Your task to perform on an android device: change alarm snooze length Image 0: 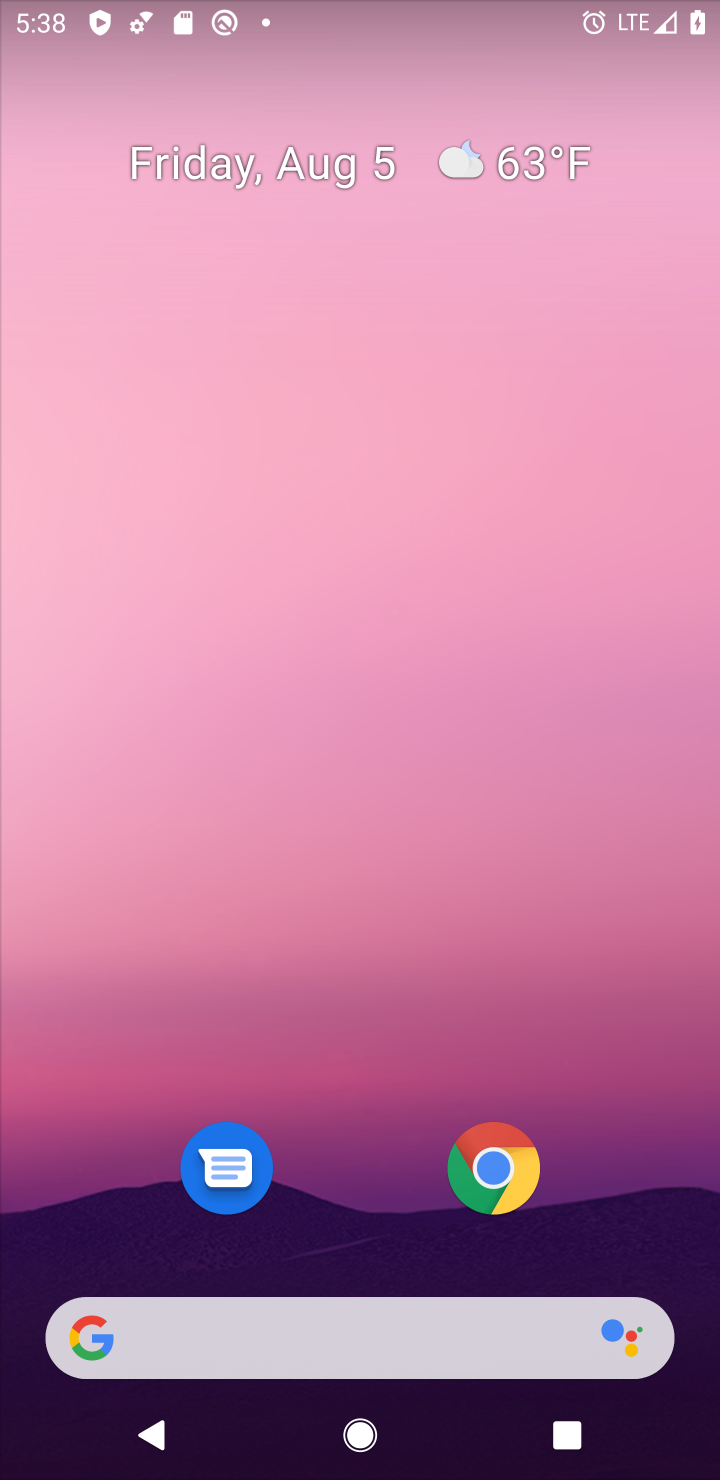
Step 0: drag from (372, 1254) to (500, 11)
Your task to perform on an android device: change alarm snooze length Image 1: 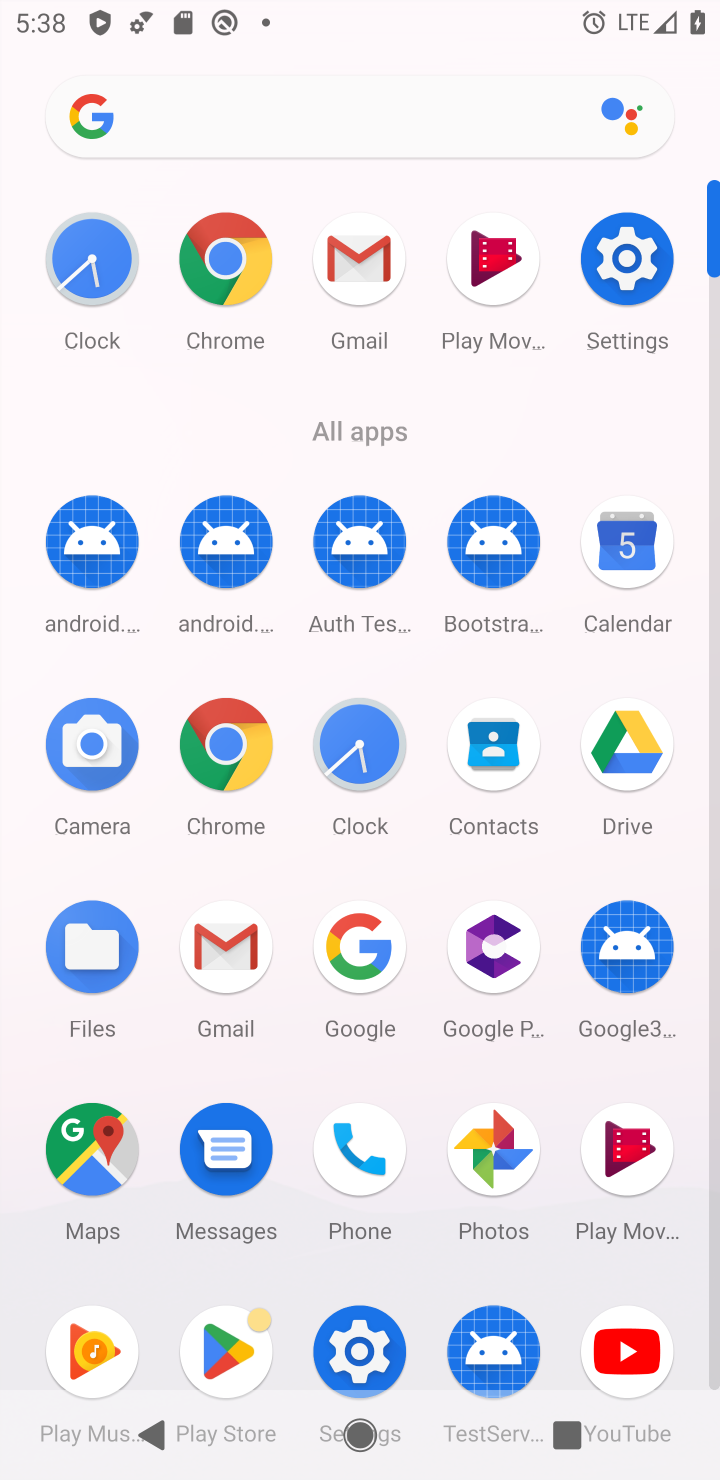
Step 1: click (360, 768)
Your task to perform on an android device: change alarm snooze length Image 2: 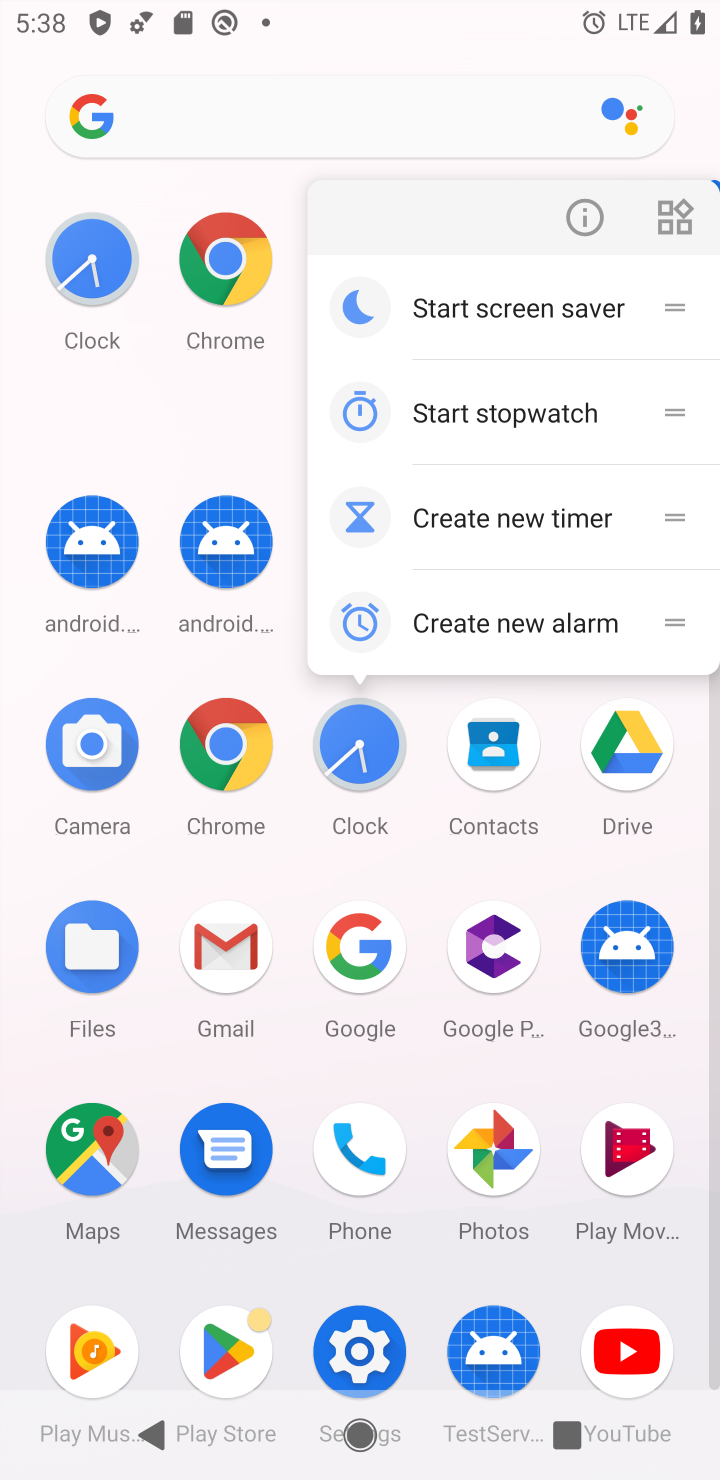
Step 2: click (374, 745)
Your task to perform on an android device: change alarm snooze length Image 3: 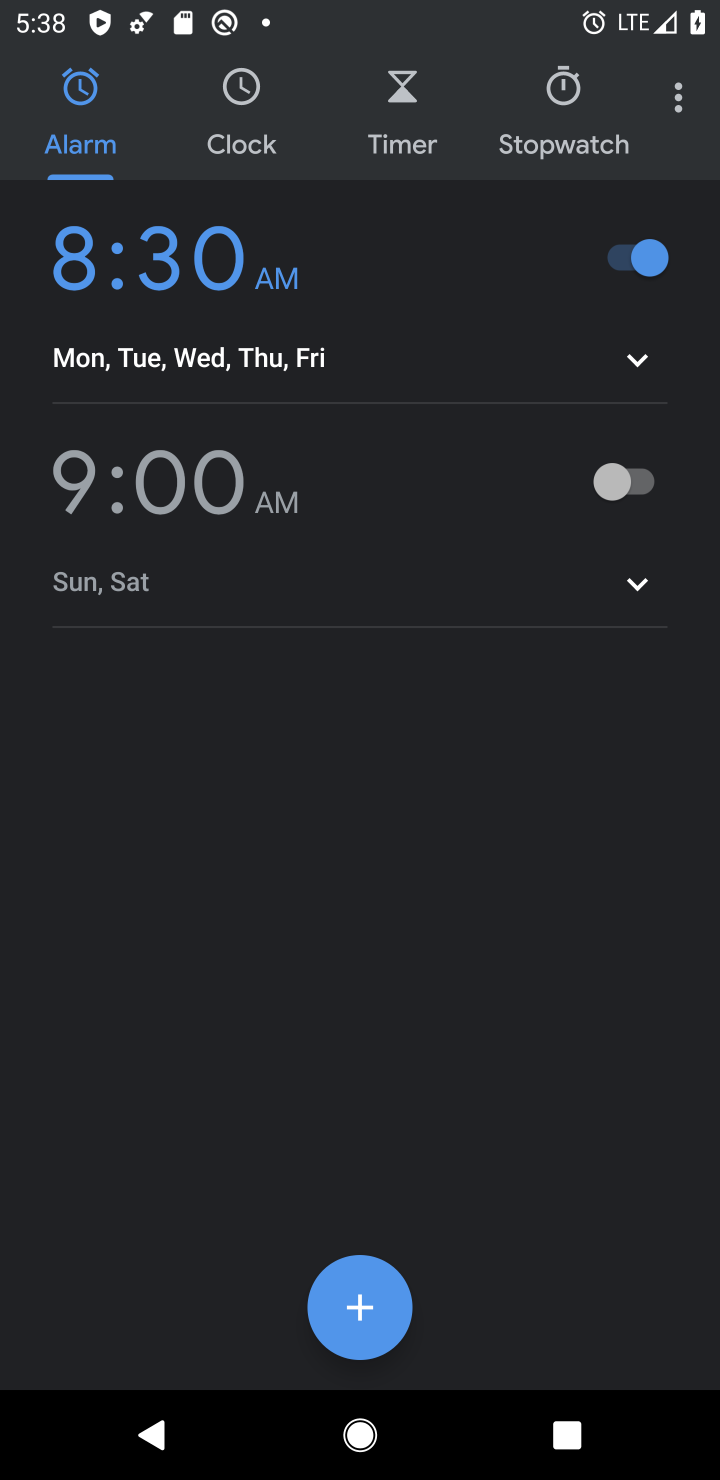
Step 3: click (669, 98)
Your task to perform on an android device: change alarm snooze length Image 4: 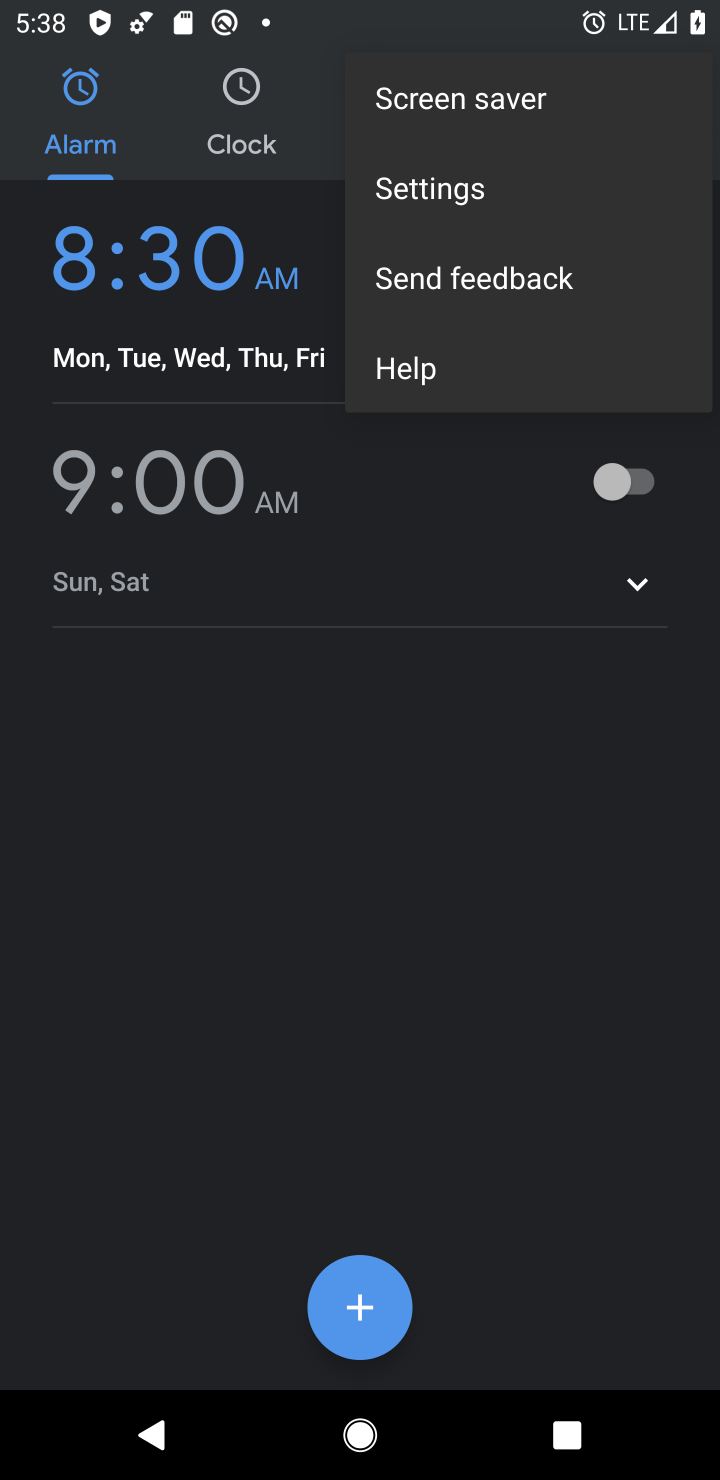
Step 4: click (439, 195)
Your task to perform on an android device: change alarm snooze length Image 5: 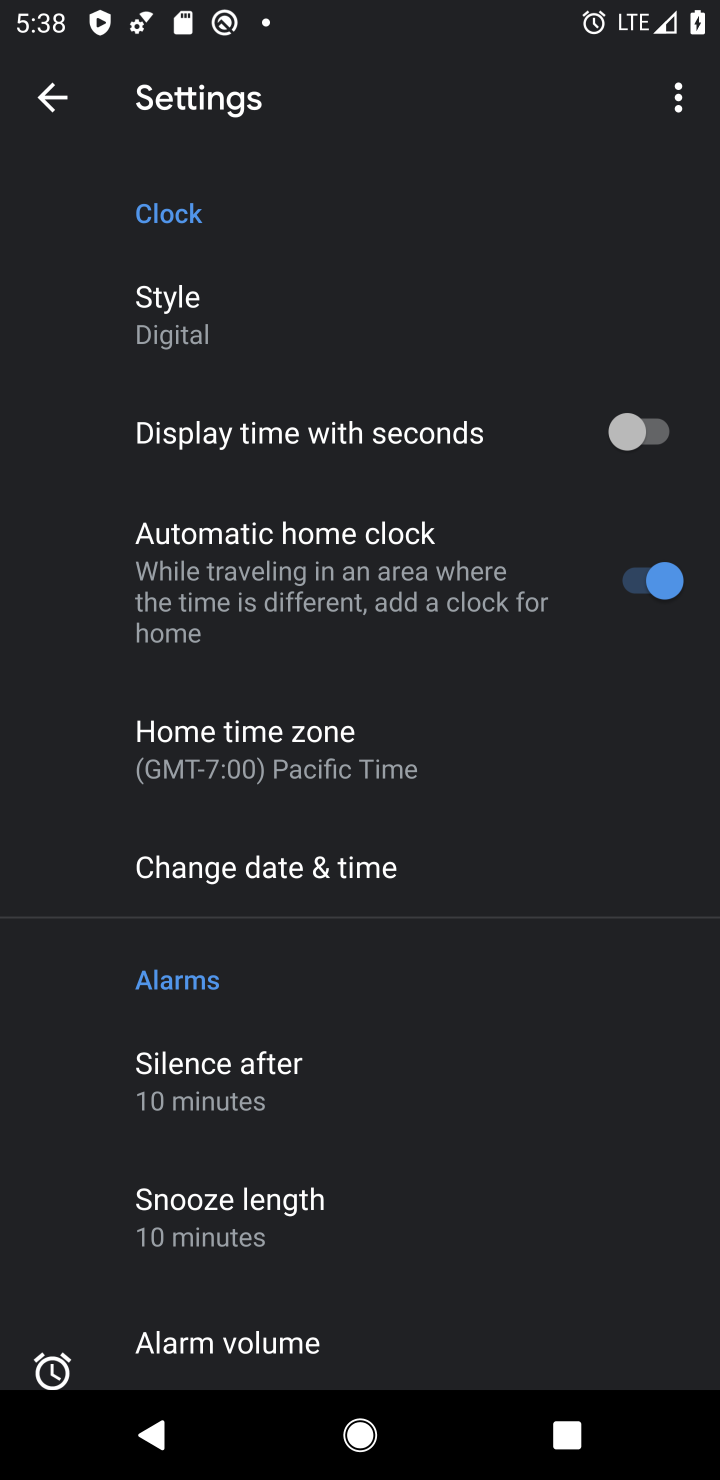
Step 5: click (220, 1204)
Your task to perform on an android device: change alarm snooze length Image 6: 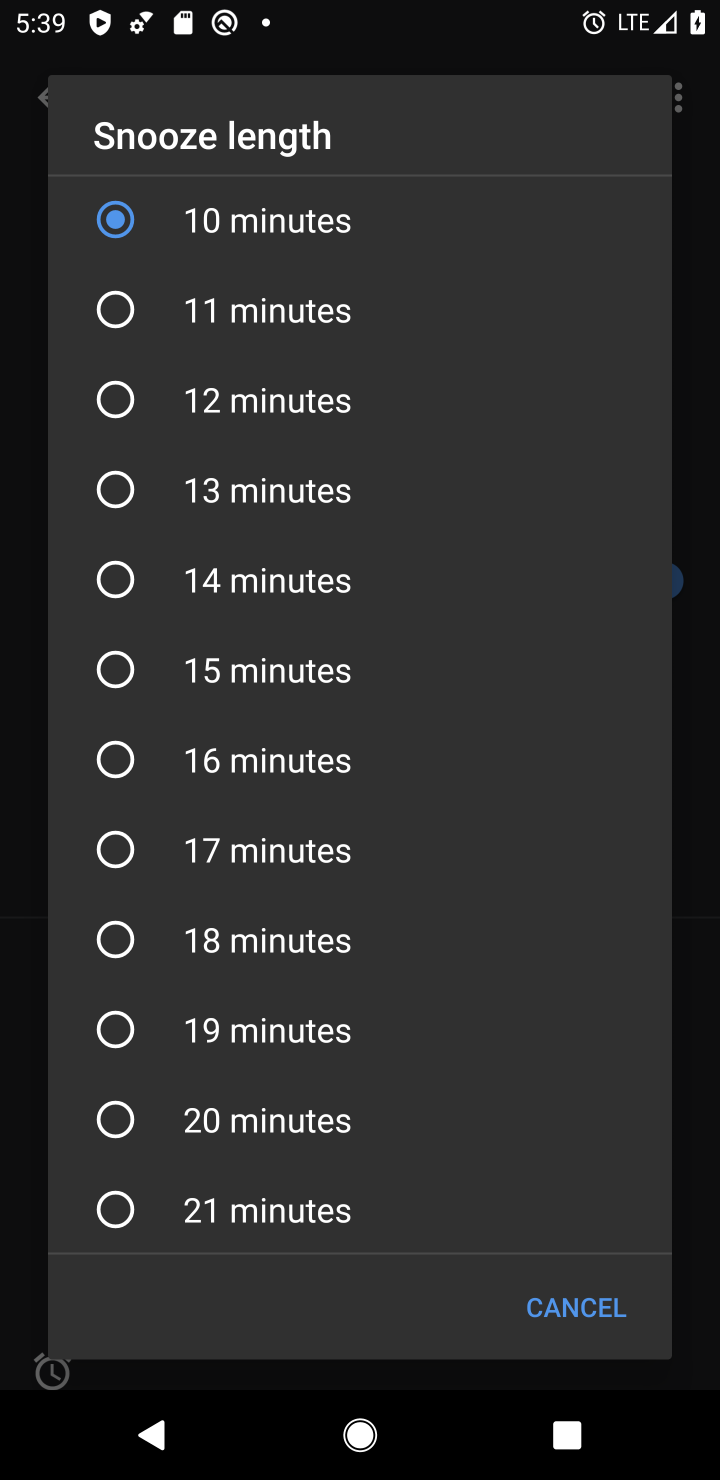
Step 6: click (110, 682)
Your task to perform on an android device: change alarm snooze length Image 7: 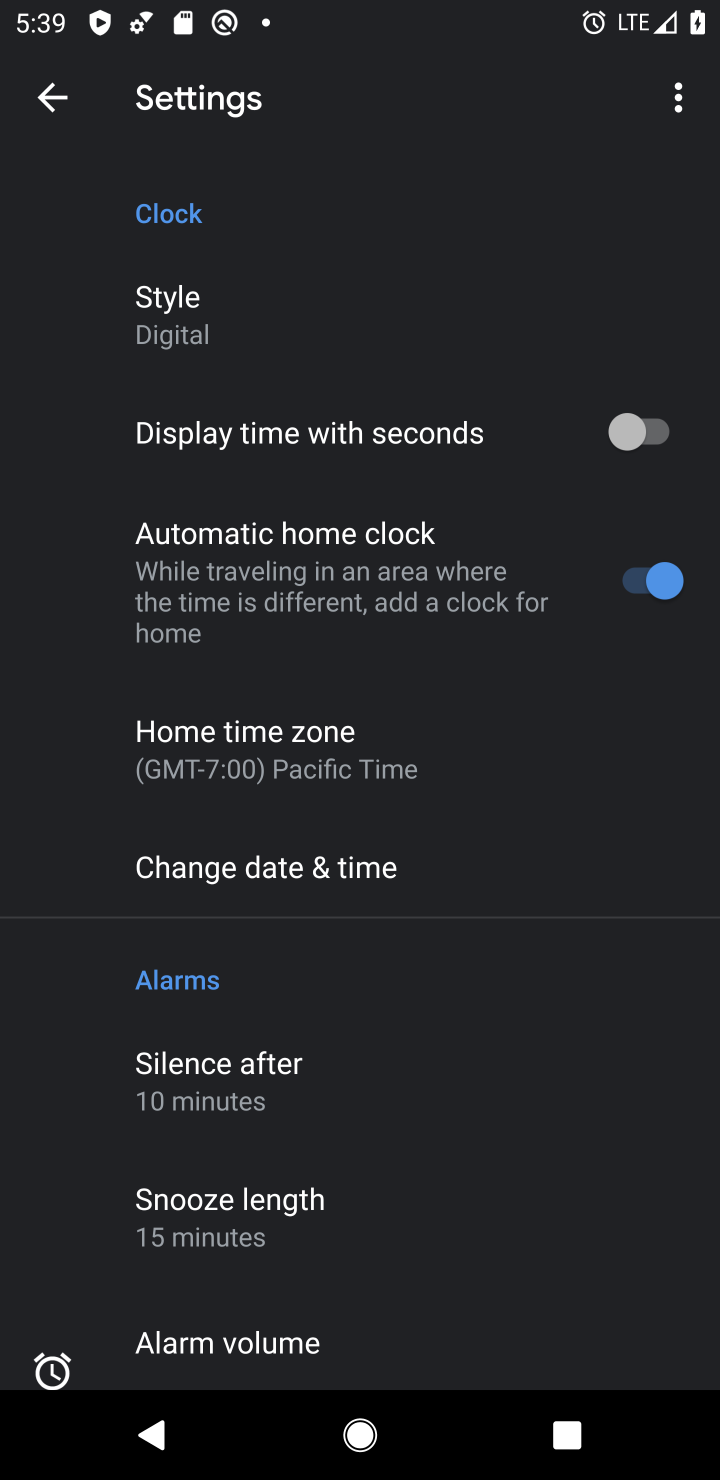
Step 7: task complete